Your task to perform on an android device: Go to settings Image 0: 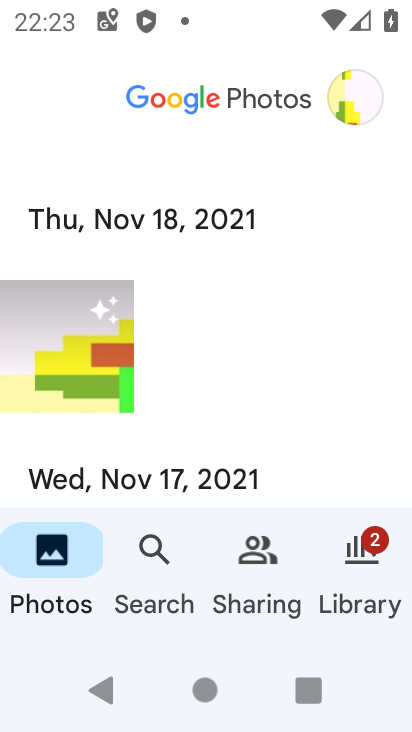
Step 0: press home button
Your task to perform on an android device: Go to settings Image 1: 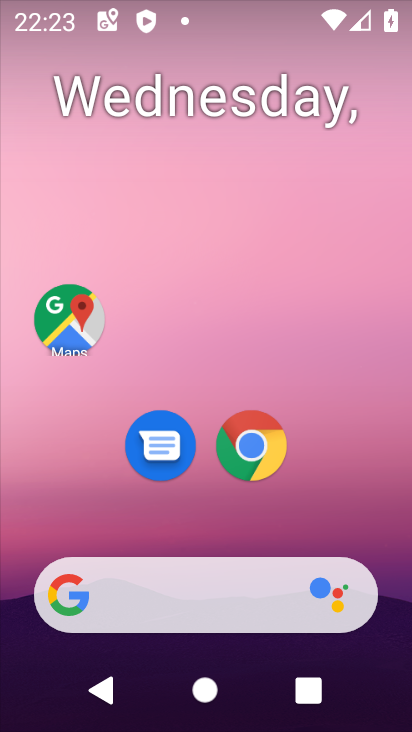
Step 1: drag from (311, 539) to (333, 165)
Your task to perform on an android device: Go to settings Image 2: 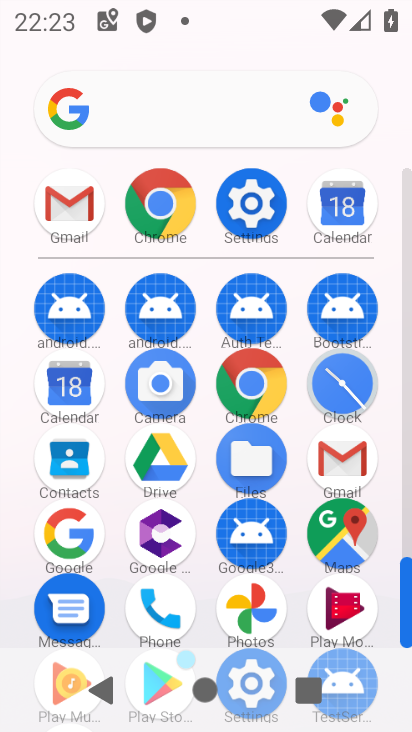
Step 2: click (234, 193)
Your task to perform on an android device: Go to settings Image 3: 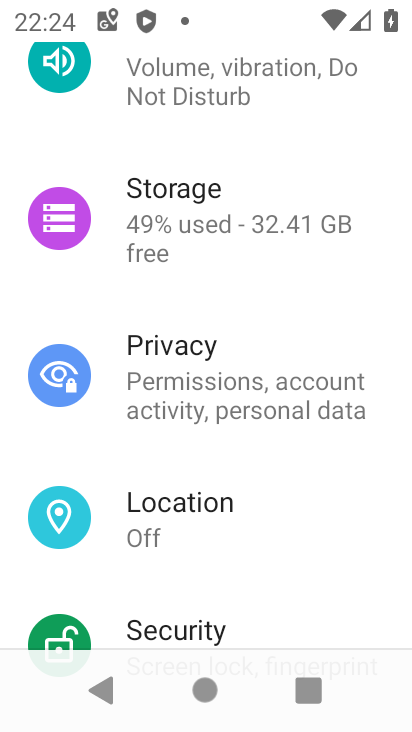
Step 3: task complete